Your task to perform on an android device: Open the stopwatch Image 0: 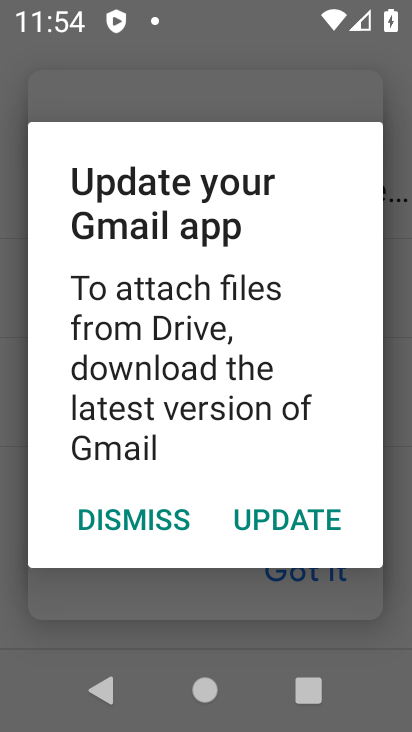
Step 0: press back button
Your task to perform on an android device: Open the stopwatch Image 1: 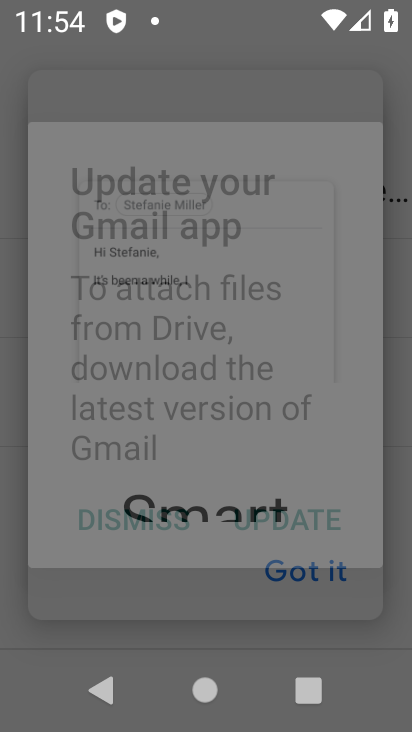
Step 1: press home button
Your task to perform on an android device: Open the stopwatch Image 2: 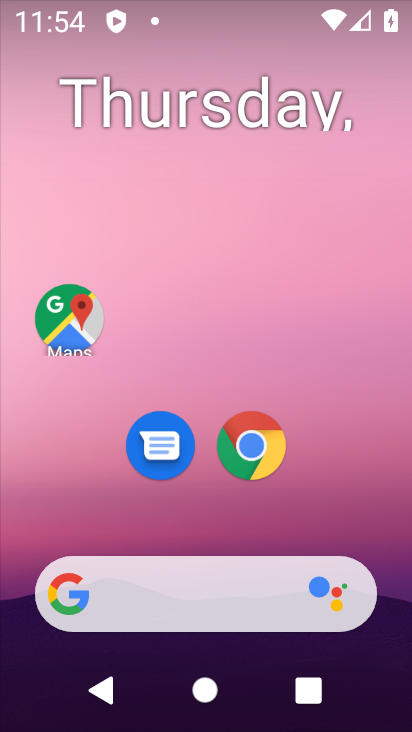
Step 2: drag from (135, 555) to (200, 102)
Your task to perform on an android device: Open the stopwatch Image 3: 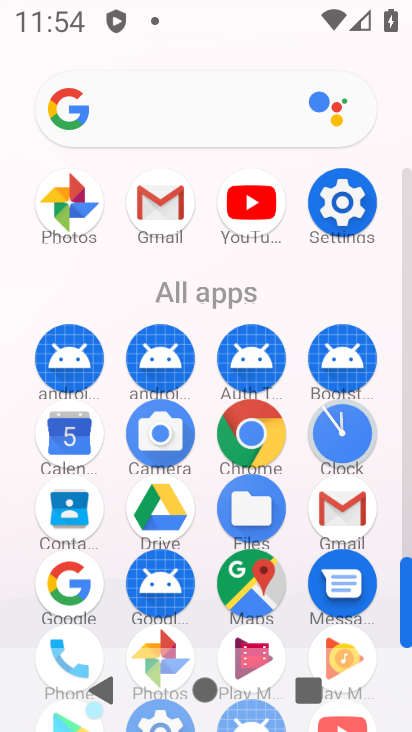
Step 3: click (358, 441)
Your task to perform on an android device: Open the stopwatch Image 4: 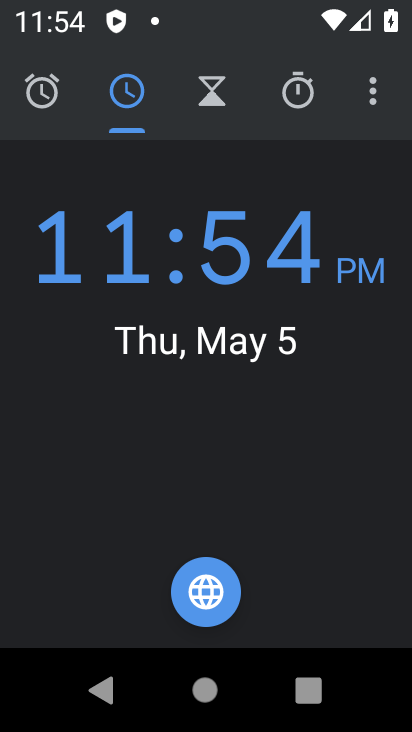
Step 4: click (291, 113)
Your task to perform on an android device: Open the stopwatch Image 5: 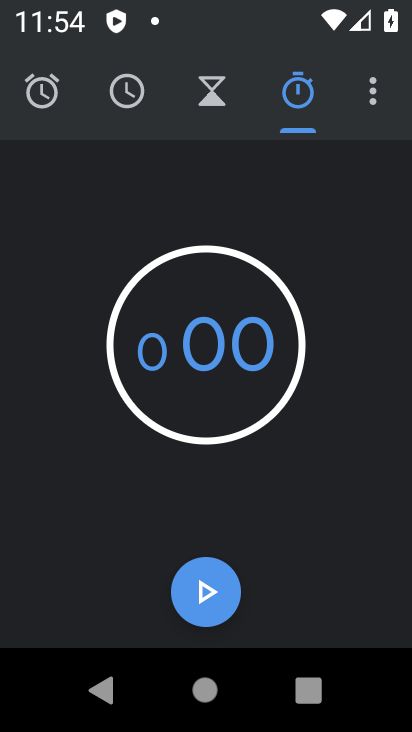
Step 5: task complete